Your task to perform on an android device: Go to network settings Image 0: 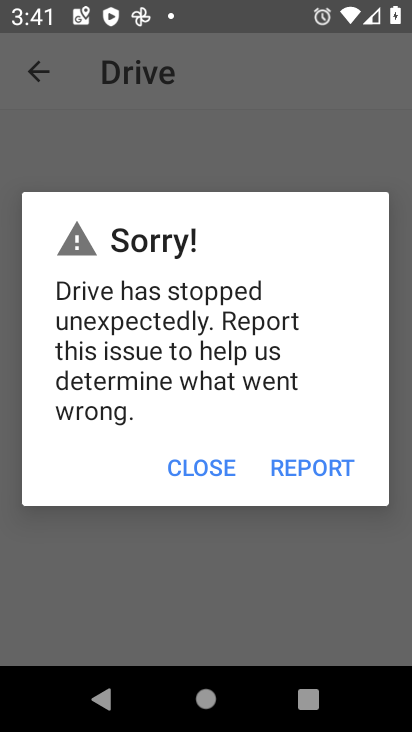
Step 0: press home button
Your task to perform on an android device: Go to network settings Image 1: 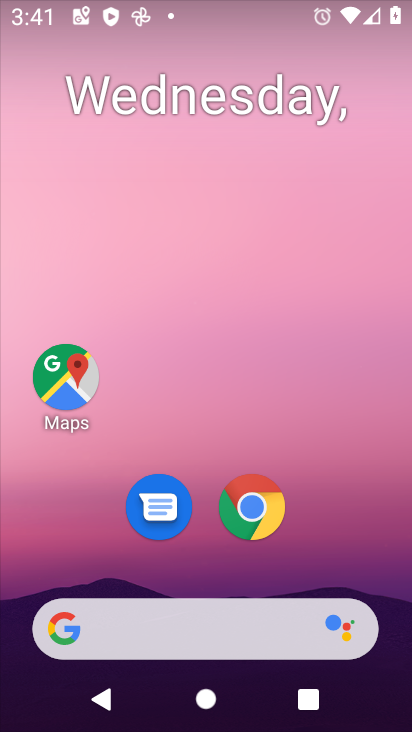
Step 1: drag from (305, 581) to (323, 245)
Your task to perform on an android device: Go to network settings Image 2: 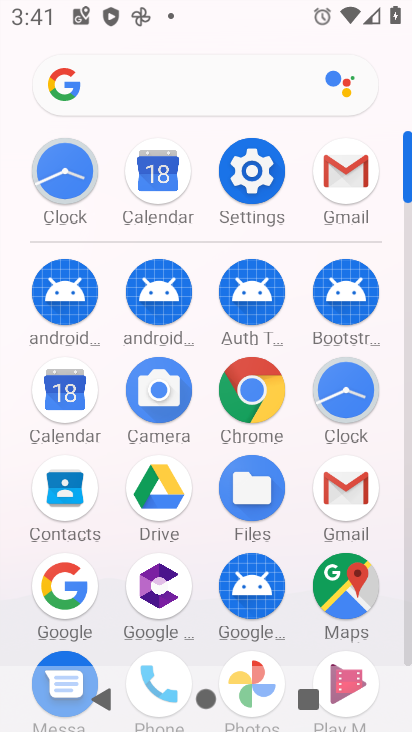
Step 2: click (253, 187)
Your task to perform on an android device: Go to network settings Image 3: 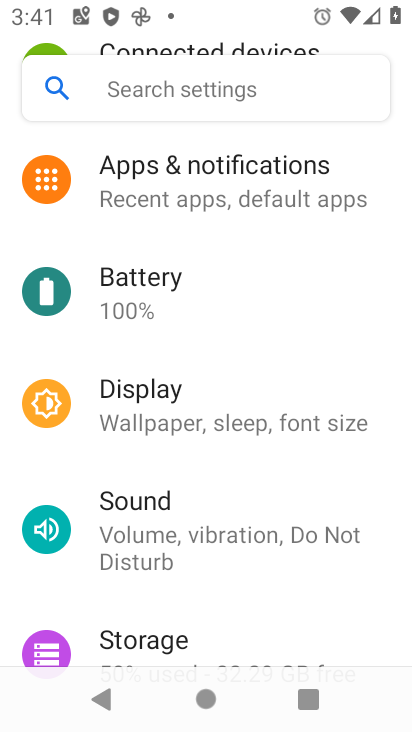
Step 3: drag from (260, 169) to (369, 459)
Your task to perform on an android device: Go to network settings Image 4: 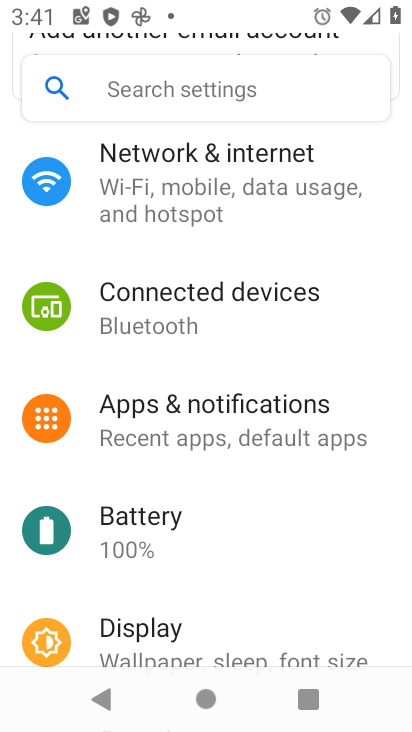
Step 4: click (142, 183)
Your task to perform on an android device: Go to network settings Image 5: 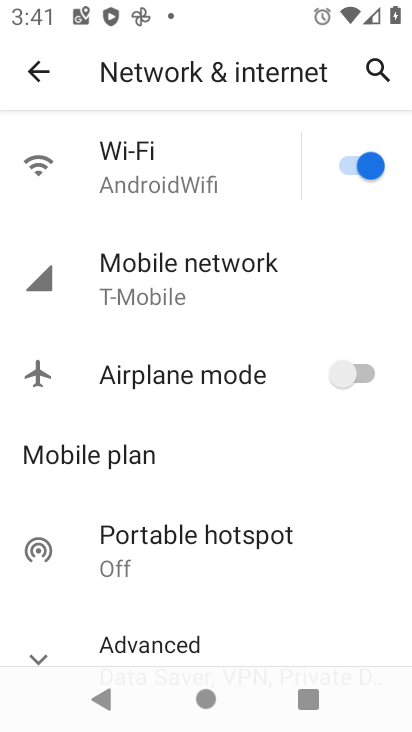
Step 5: task complete